Your task to perform on an android device: What's on my calendar tomorrow? Image 0: 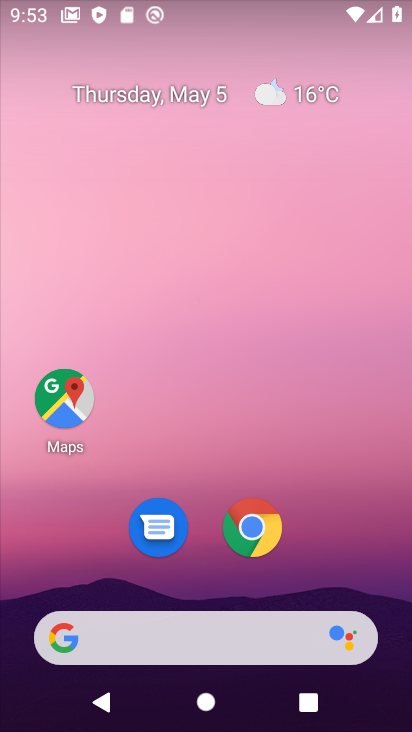
Step 0: drag from (38, 530) to (175, 162)
Your task to perform on an android device: What's on my calendar tomorrow? Image 1: 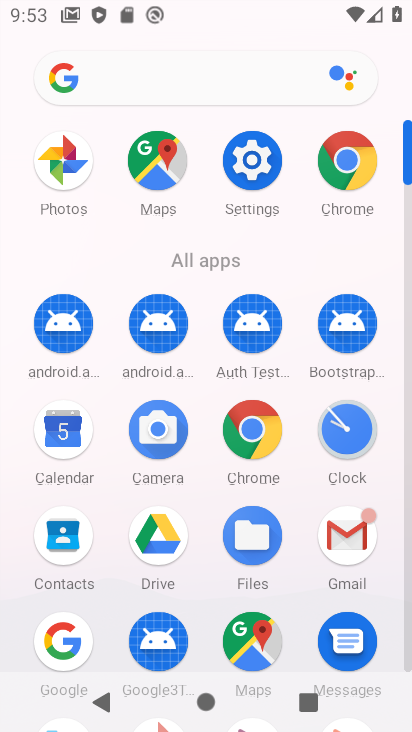
Step 1: click (54, 436)
Your task to perform on an android device: What's on my calendar tomorrow? Image 2: 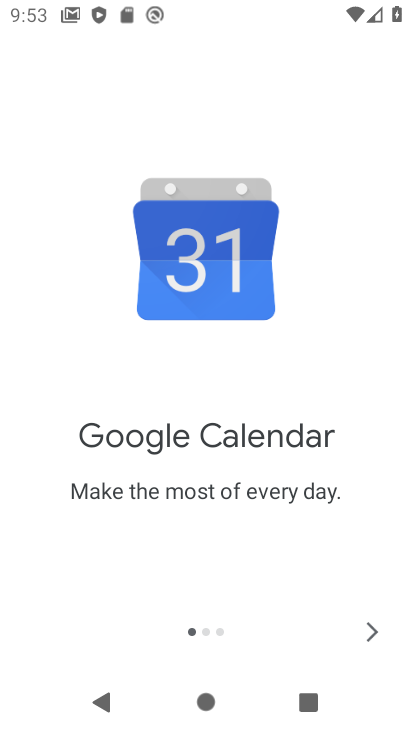
Step 2: click (369, 633)
Your task to perform on an android device: What's on my calendar tomorrow? Image 3: 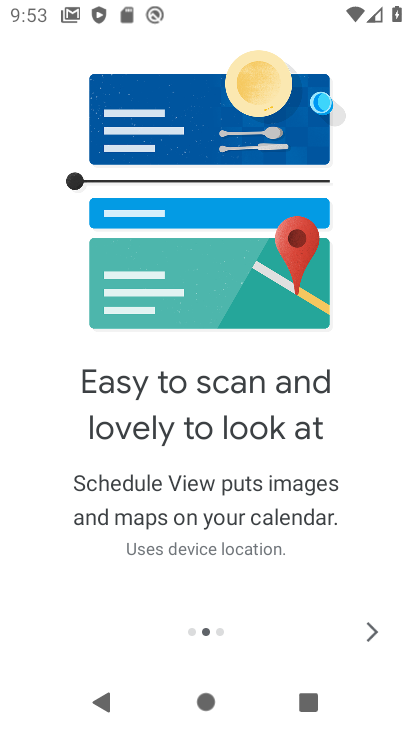
Step 3: click (369, 632)
Your task to perform on an android device: What's on my calendar tomorrow? Image 4: 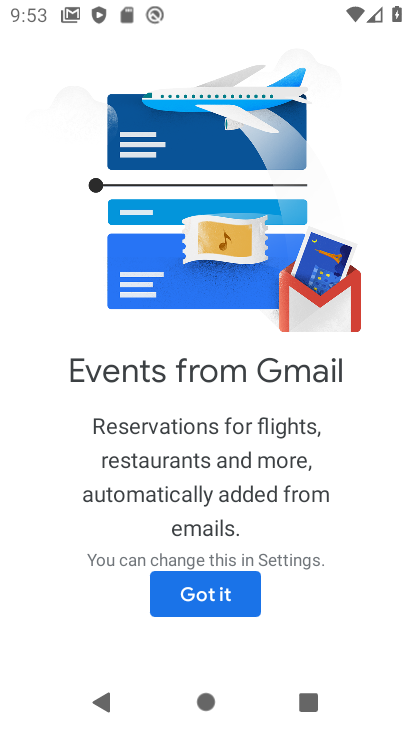
Step 4: click (169, 583)
Your task to perform on an android device: What's on my calendar tomorrow? Image 5: 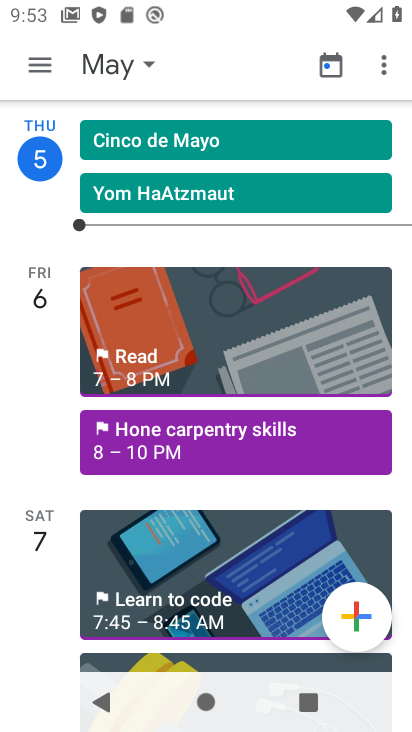
Step 5: click (46, 288)
Your task to perform on an android device: What's on my calendar tomorrow? Image 6: 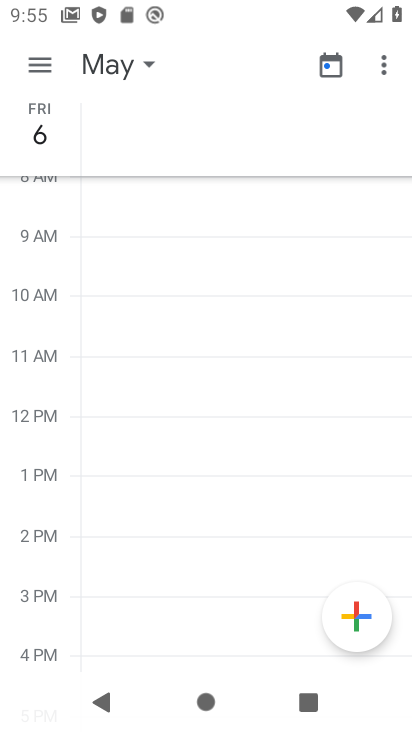
Step 6: task complete